Your task to perform on an android device: install app "eBay: The shopping marketplace" Image 0: 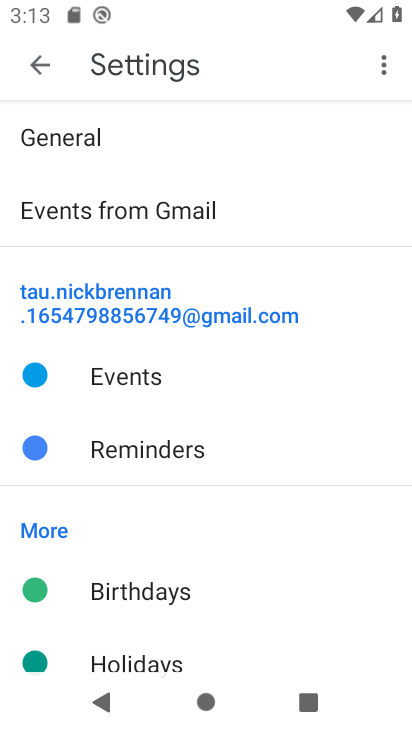
Step 0: press home button
Your task to perform on an android device: install app "eBay: The shopping marketplace" Image 1: 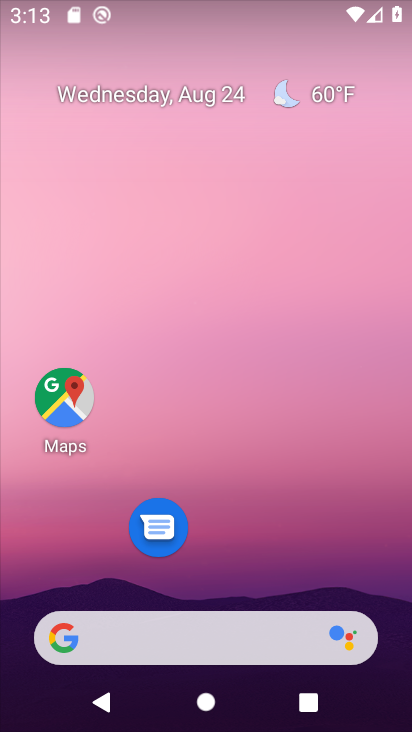
Step 1: drag from (288, 576) to (305, 22)
Your task to perform on an android device: install app "eBay: The shopping marketplace" Image 2: 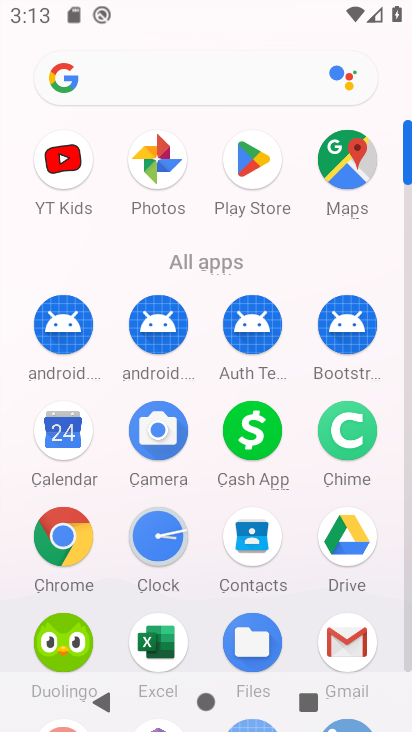
Step 2: click (258, 150)
Your task to perform on an android device: install app "eBay: The shopping marketplace" Image 3: 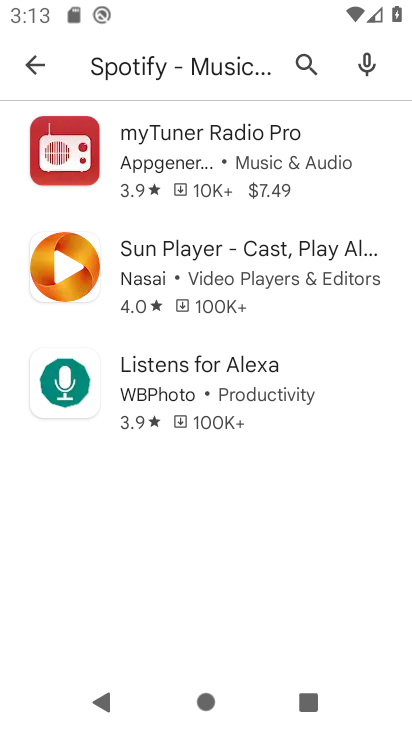
Step 3: click (306, 79)
Your task to perform on an android device: install app "eBay: The shopping marketplace" Image 4: 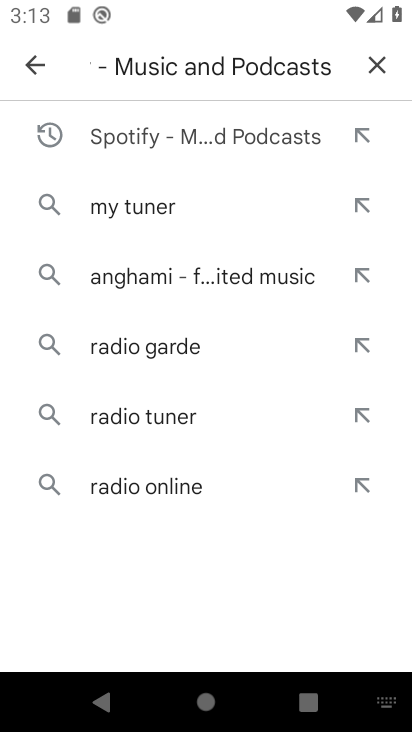
Step 4: click (376, 62)
Your task to perform on an android device: install app "eBay: The shopping marketplace" Image 5: 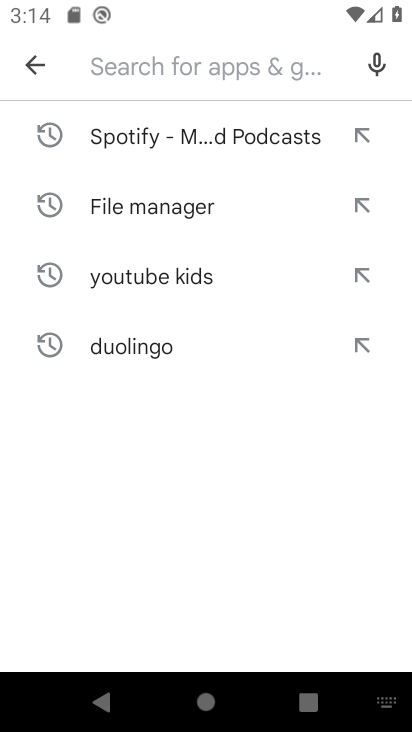
Step 5: type "ebay"
Your task to perform on an android device: install app "eBay: The shopping marketplace" Image 6: 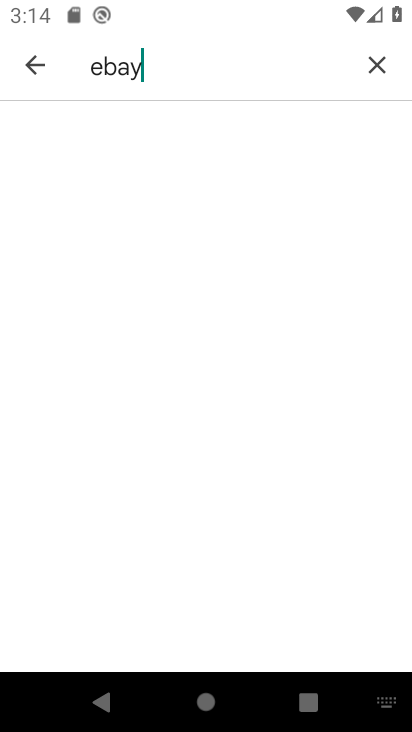
Step 6: task complete